Your task to perform on an android device: Go to notification settings Image 0: 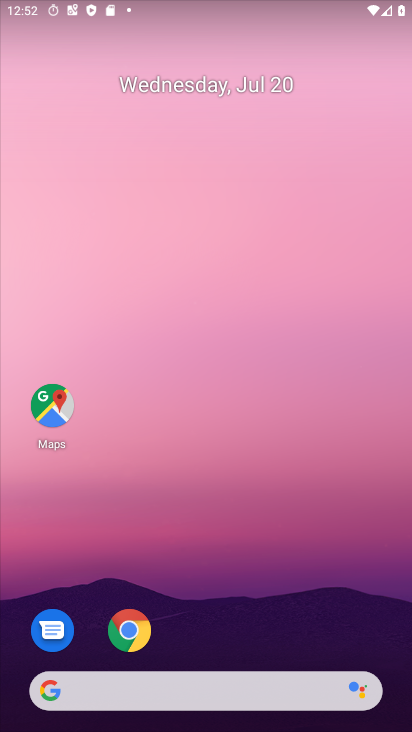
Step 0: drag from (328, 578) to (327, 118)
Your task to perform on an android device: Go to notification settings Image 1: 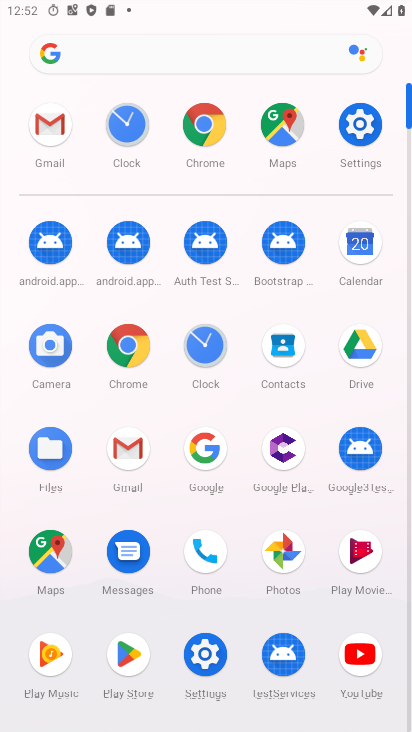
Step 1: click (346, 118)
Your task to perform on an android device: Go to notification settings Image 2: 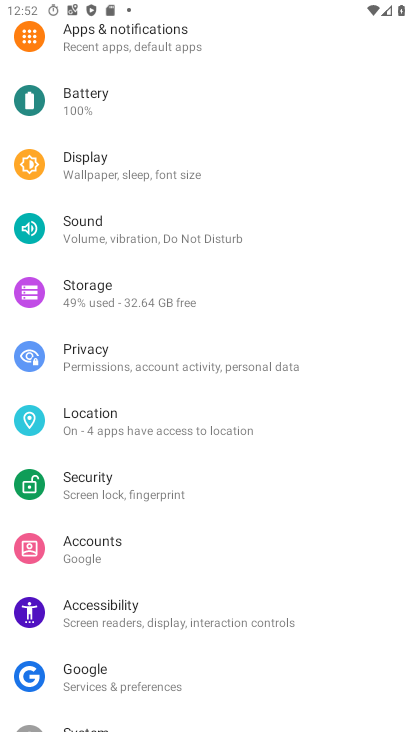
Step 2: click (145, 51)
Your task to perform on an android device: Go to notification settings Image 3: 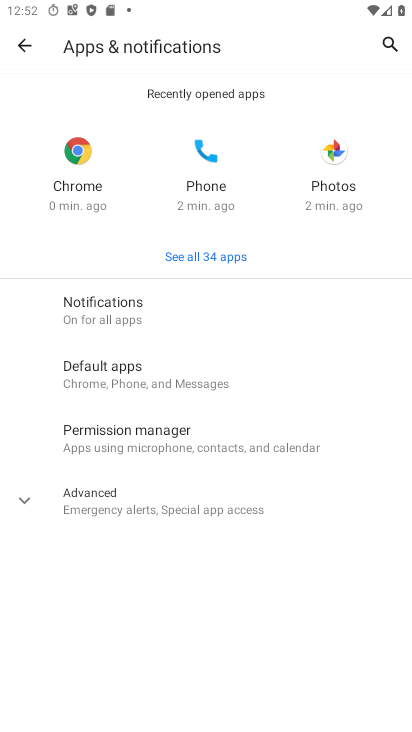
Step 3: click (153, 306)
Your task to perform on an android device: Go to notification settings Image 4: 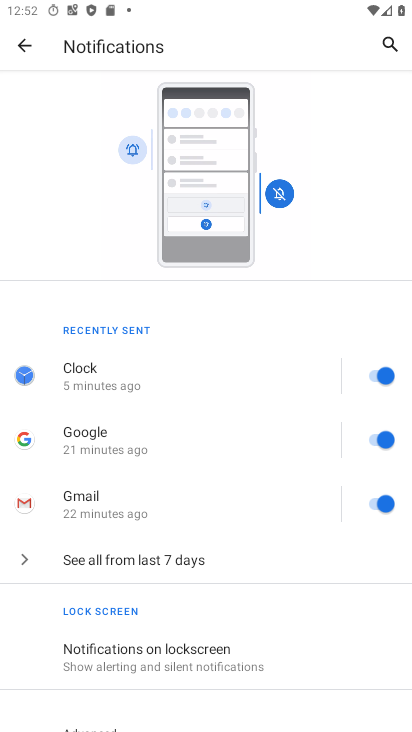
Step 4: task complete